Your task to perform on an android device: Go to internet settings Image 0: 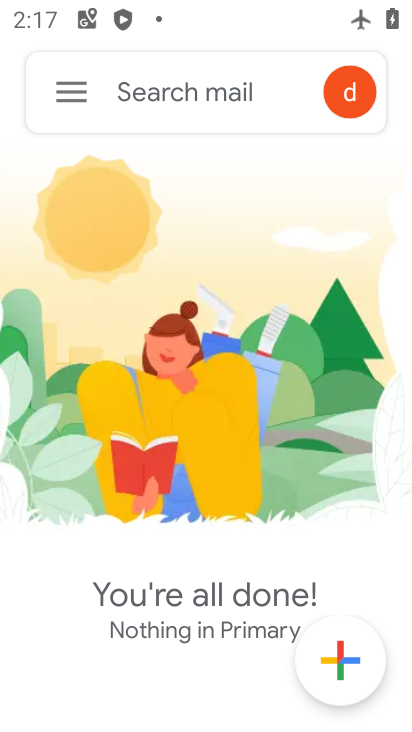
Step 0: press home button
Your task to perform on an android device: Go to internet settings Image 1: 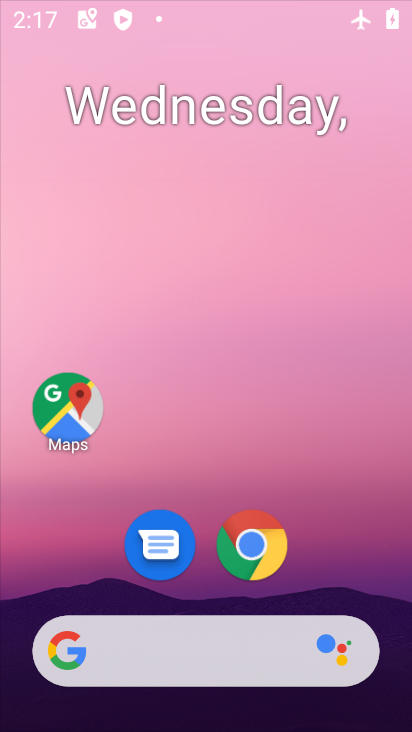
Step 1: click (53, 592)
Your task to perform on an android device: Go to internet settings Image 2: 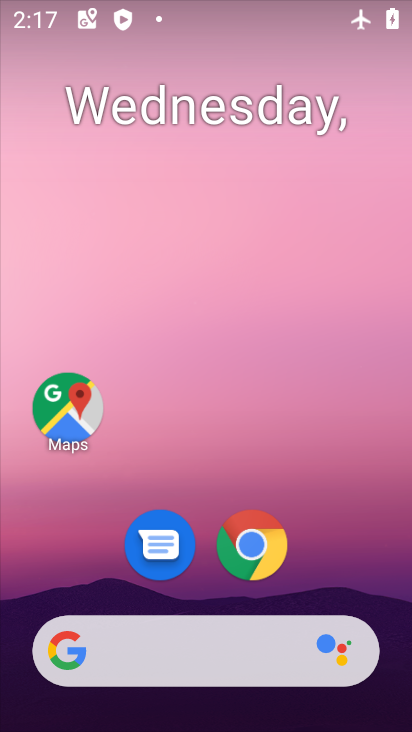
Step 2: drag from (309, 506) to (258, 124)
Your task to perform on an android device: Go to internet settings Image 3: 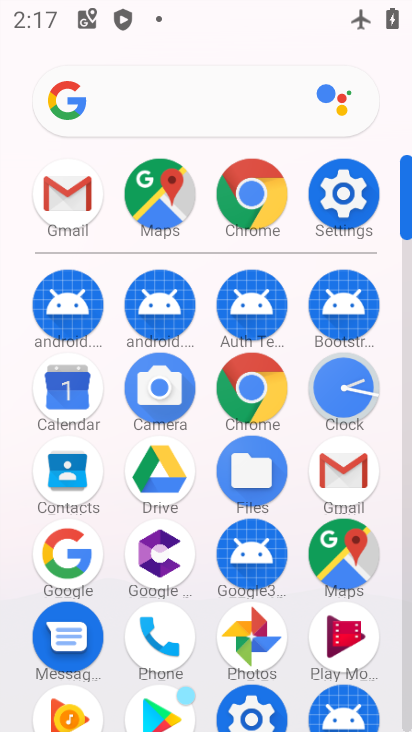
Step 3: click (348, 178)
Your task to perform on an android device: Go to internet settings Image 4: 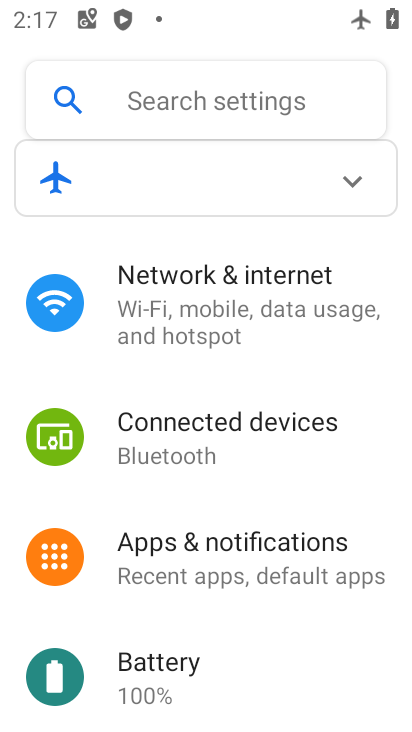
Step 4: click (221, 319)
Your task to perform on an android device: Go to internet settings Image 5: 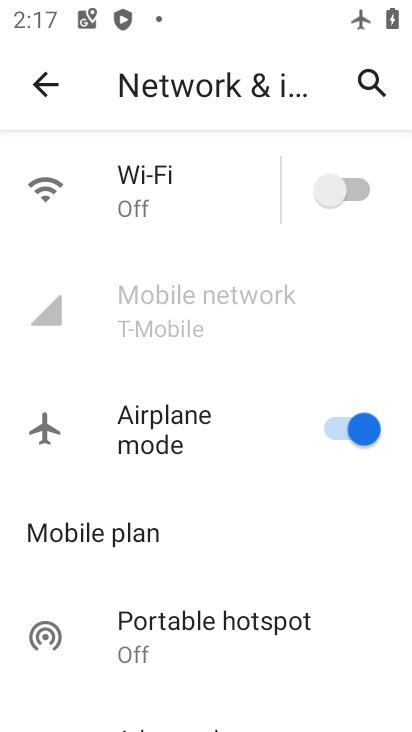
Step 5: click (196, 318)
Your task to perform on an android device: Go to internet settings Image 6: 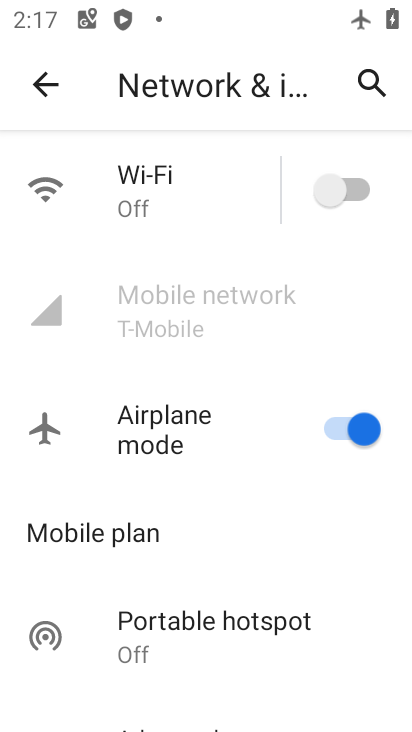
Step 6: click (196, 318)
Your task to perform on an android device: Go to internet settings Image 7: 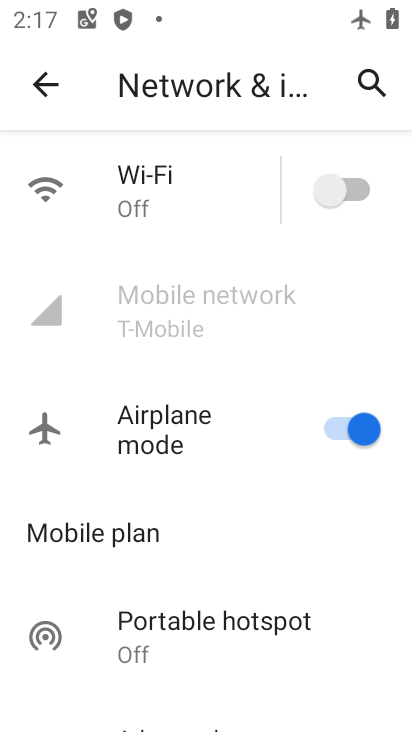
Step 7: task complete